Your task to perform on an android device: Add dell xps to the cart on target, then select checkout. Image 0: 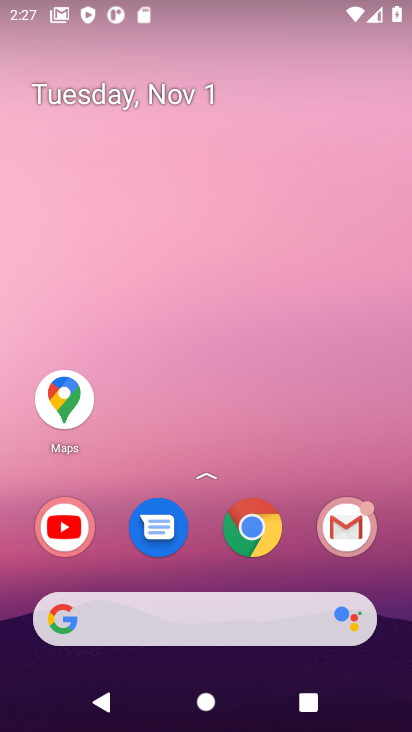
Step 0: press home button
Your task to perform on an android device: Add dell xps to the cart on target, then select checkout. Image 1: 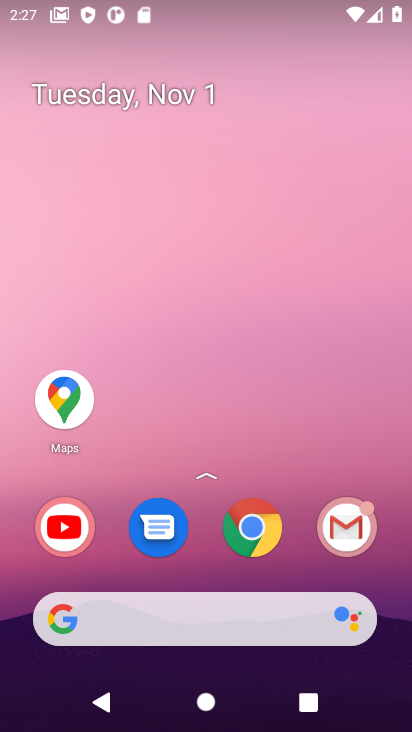
Step 1: click (207, 628)
Your task to perform on an android device: Add dell xps to the cart on target, then select checkout. Image 2: 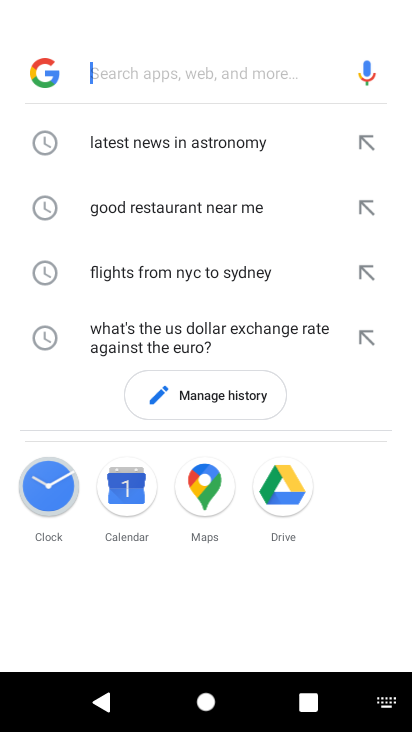
Step 2: type "target"
Your task to perform on an android device: Add dell xps to the cart on target, then select checkout. Image 3: 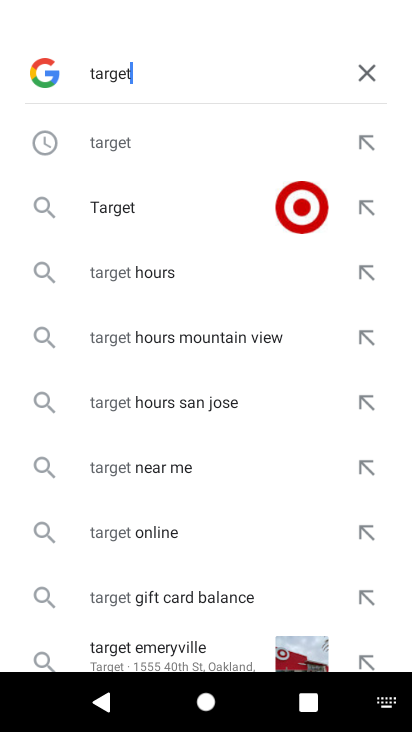
Step 3: click (244, 139)
Your task to perform on an android device: Add dell xps to the cart on target, then select checkout. Image 4: 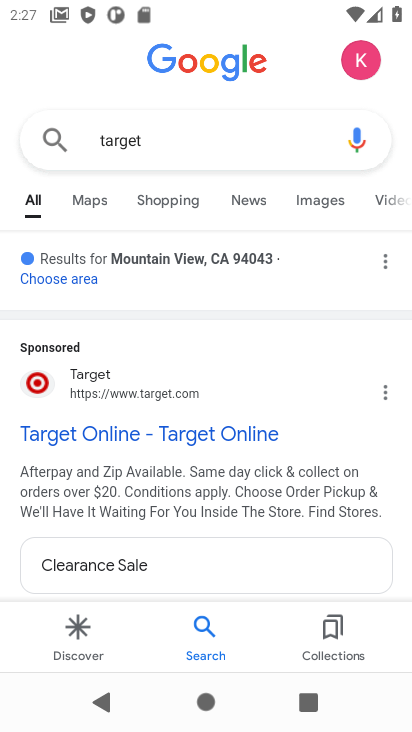
Step 4: click (79, 428)
Your task to perform on an android device: Add dell xps to the cart on target, then select checkout. Image 5: 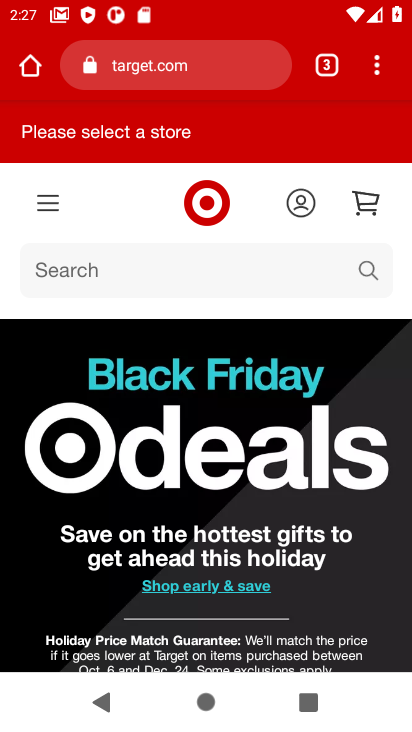
Step 5: click (235, 271)
Your task to perform on an android device: Add dell xps to the cart on target, then select checkout. Image 6: 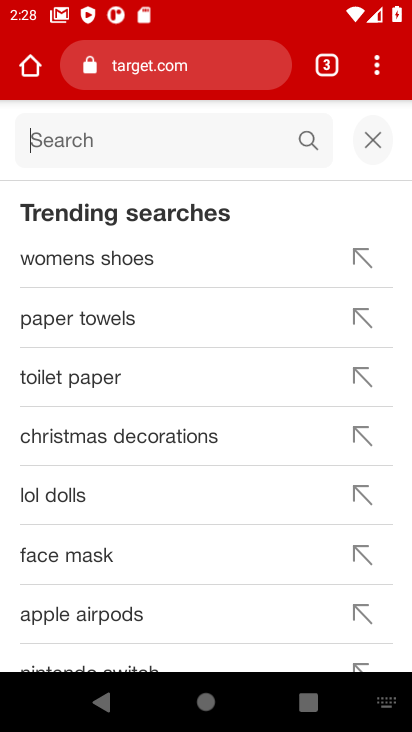
Step 6: type "dell xps t"
Your task to perform on an android device: Add dell xps to the cart on target, then select checkout. Image 7: 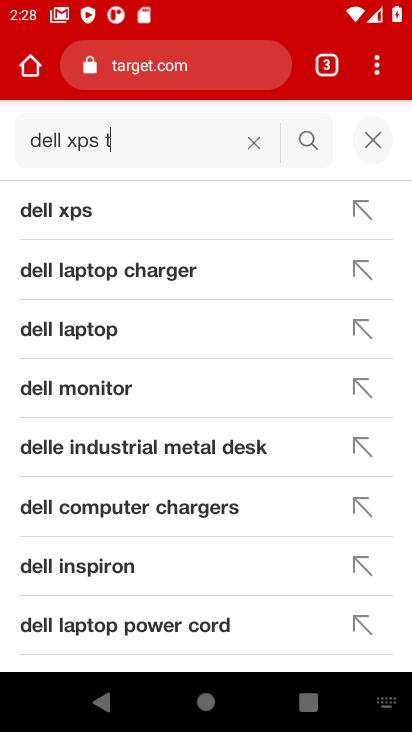
Step 7: click (42, 208)
Your task to perform on an android device: Add dell xps to the cart on target, then select checkout. Image 8: 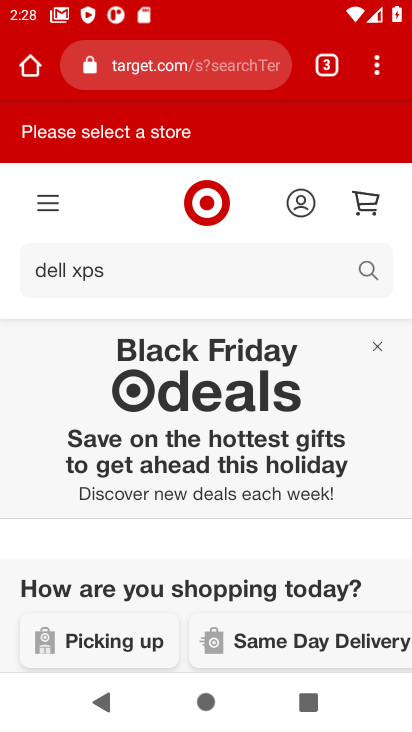
Step 8: drag from (303, 519) to (350, 256)
Your task to perform on an android device: Add dell xps to the cart on target, then select checkout. Image 9: 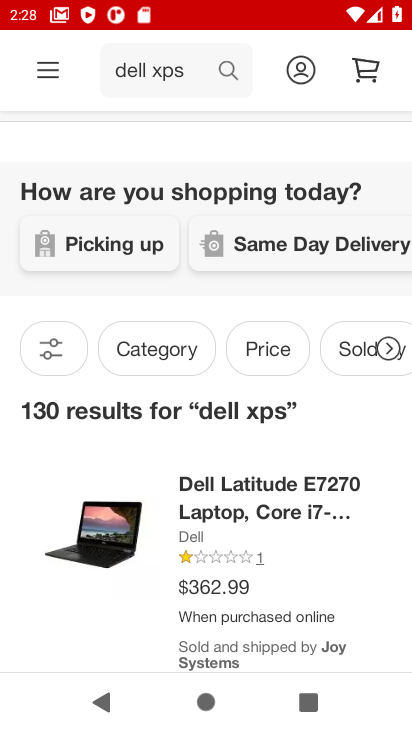
Step 9: drag from (181, 419) to (203, 260)
Your task to perform on an android device: Add dell xps to the cart on target, then select checkout. Image 10: 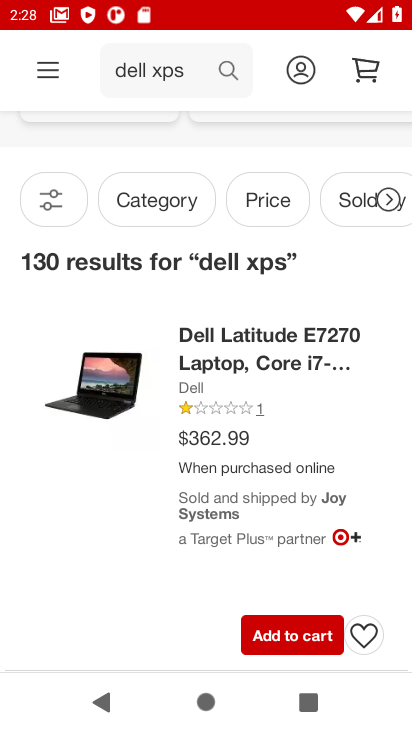
Step 10: click (243, 337)
Your task to perform on an android device: Add dell xps to the cart on target, then select checkout. Image 11: 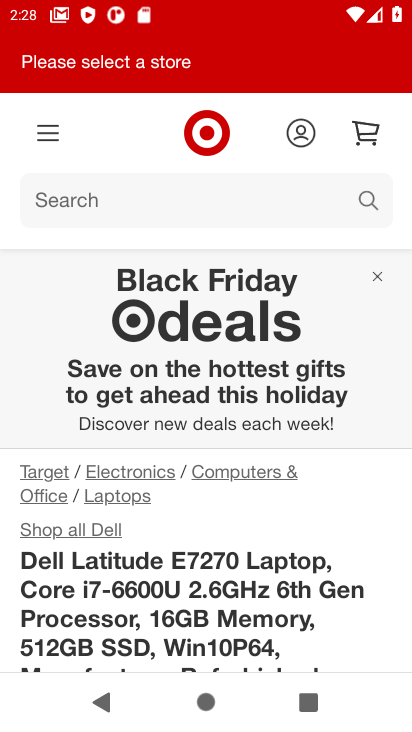
Step 11: drag from (223, 506) to (246, 258)
Your task to perform on an android device: Add dell xps to the cart on target, then select checkout. Image 12: 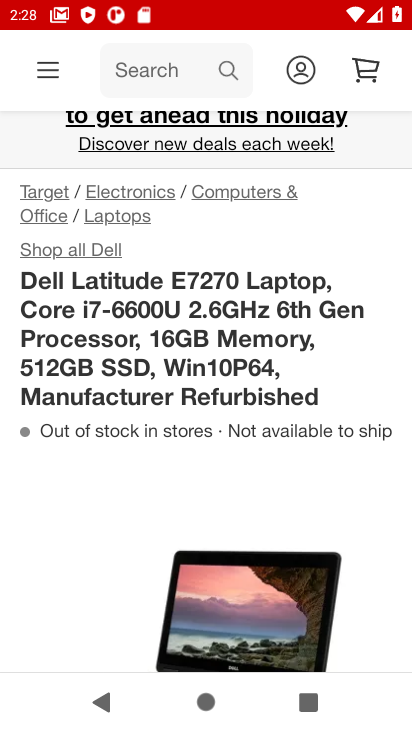
Step 12: drag from (187, 334) to (217, 218)
Your task to perform on an android device: Add dell xps to the cart on target, then select checkout. Image 13: 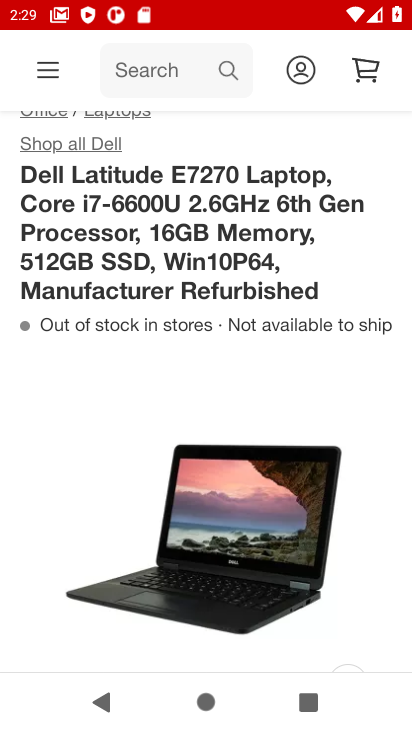
Step 13: drag from (266, 573) to (336, 300)
Your task to perform on an android device: Add dell xps to the cart on target, then select checkout. Image 14: 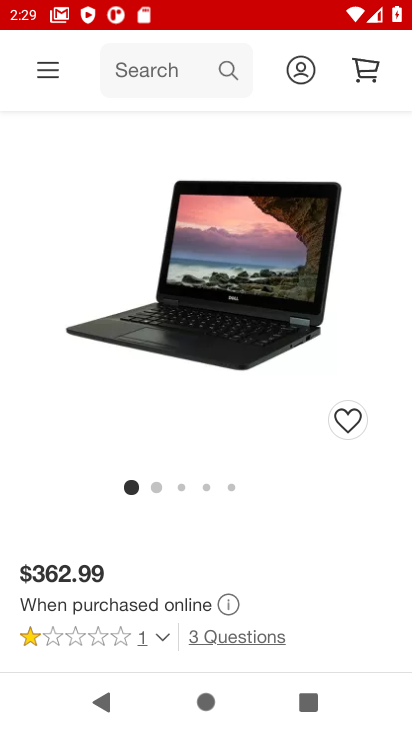
Step 14: drag from (272, 404) to (286, 335)
Your task to perform on an android device: Add dell xps to the cart on target, then select checkout. Image 15: 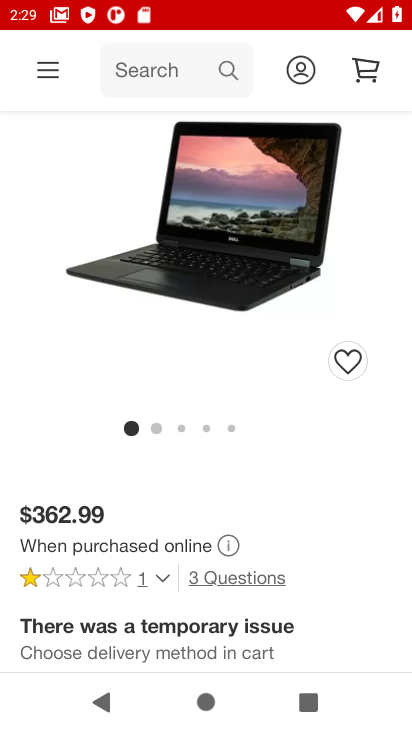
Step 15: drag from (294, 516) to (281, 226)
Your task to perform on an android device: Add dell xps to the cart on target, then select checkout. Image 16: 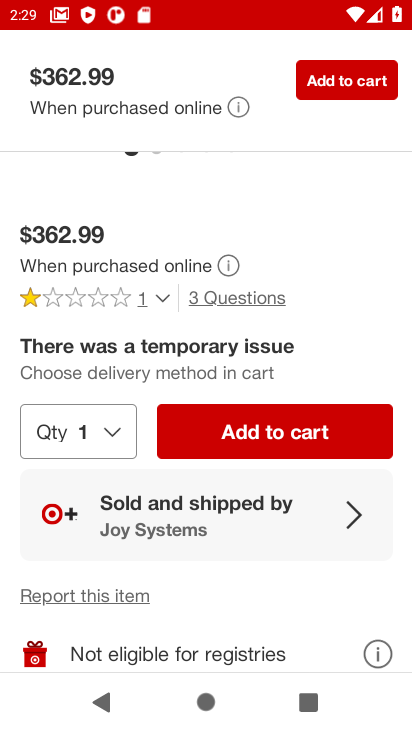
Step 16: click (261, 439)
Your task to perform on an android device: Add dell xps to the cart on target, then select checkout. Image 17: 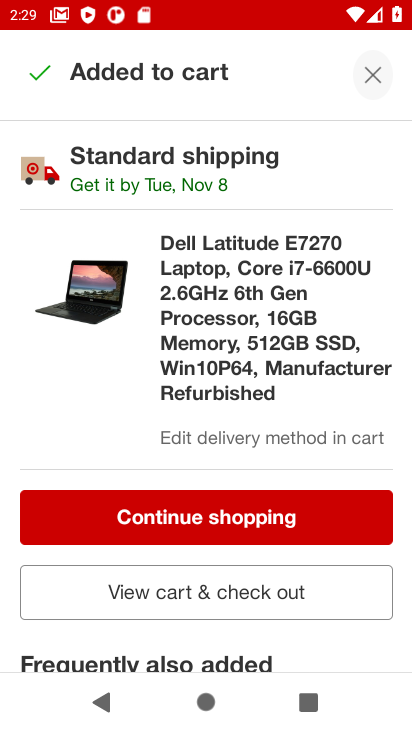
Step 17: click (187, 586)
Your task to perform on an android device: Add dell xps to the cart on target, then select checkout. Image 18: 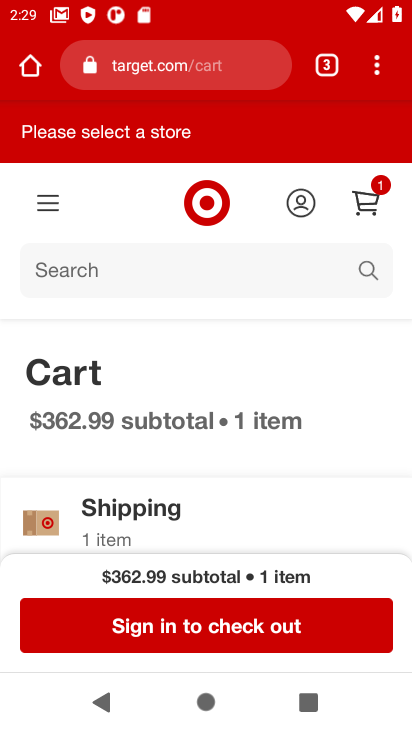
Step 18: task complete